Your task to perform on an android device: What's the weather going to be this weekend? Image 0: 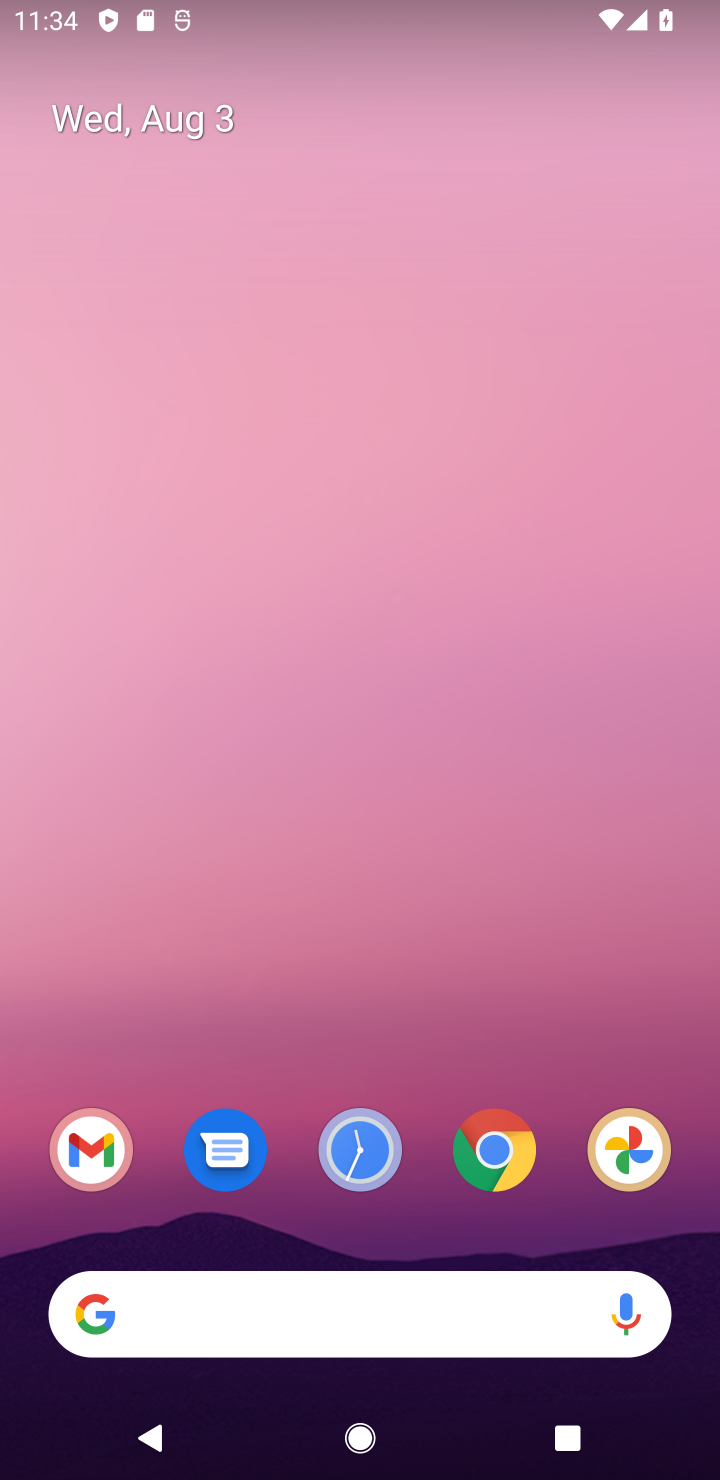
Step 0: press home button
Your task to perform on an android device: What's the weather going to be this weekend? Image 1: 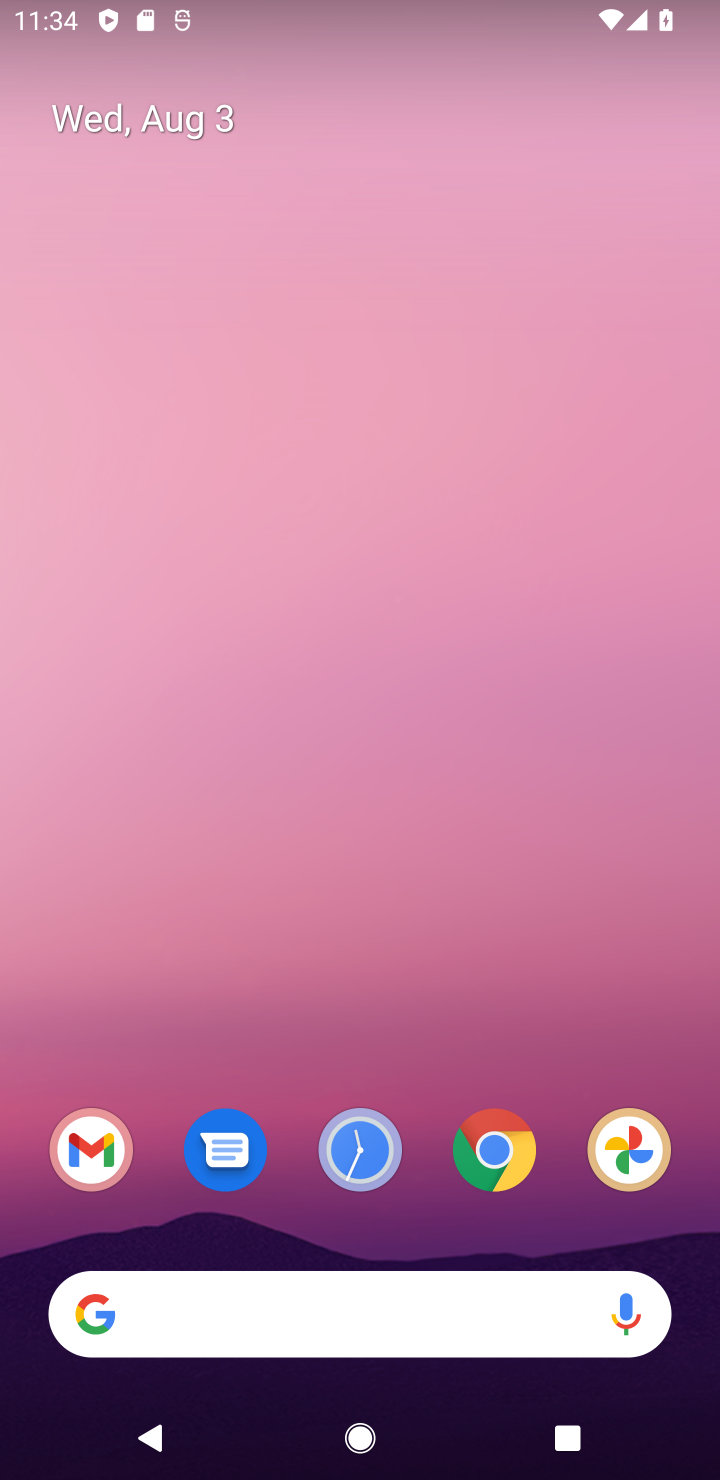
Step 1: drag from (519, 1064) to (536, 407)
Your task to perform on an android device: What's the weather going to be this weekend? Image 2: 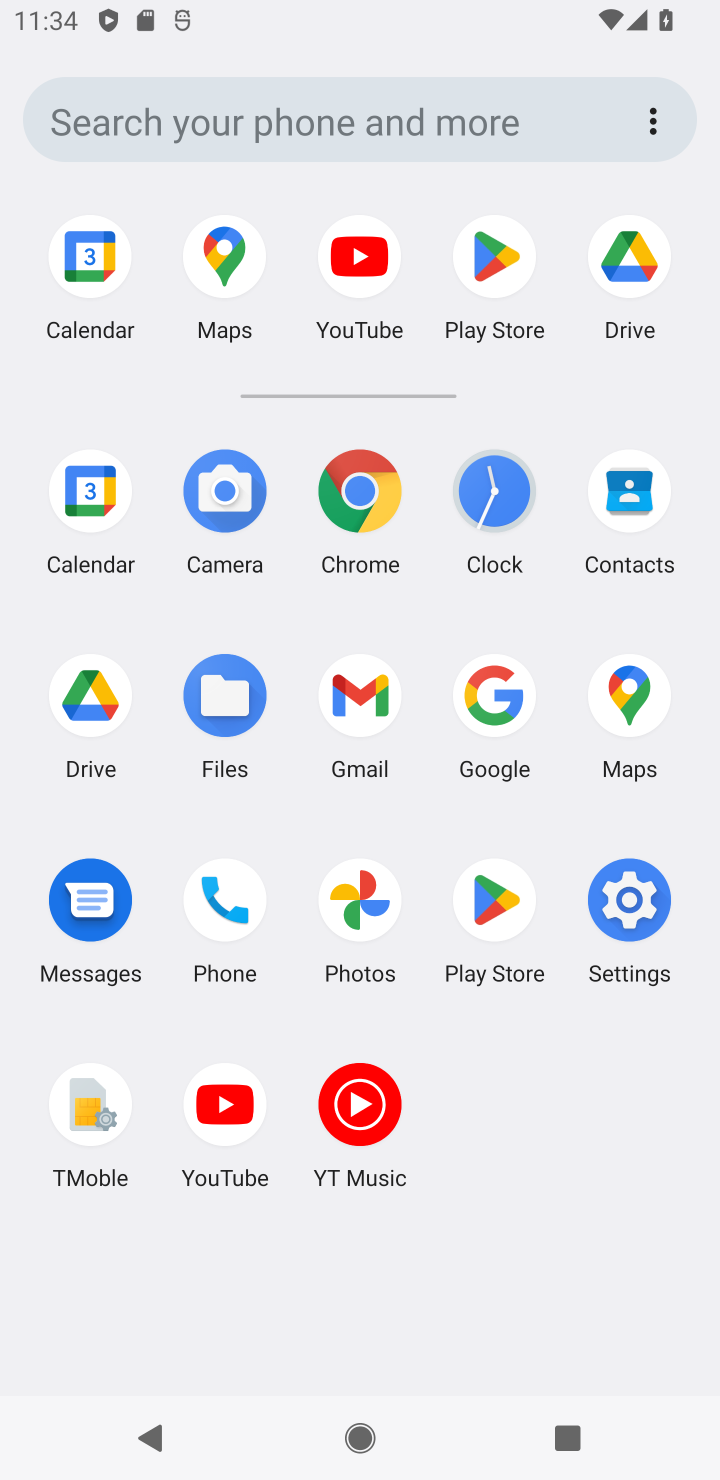
Step 2: click (403, 122)
Your task to perform on an android device: What's the weather going to be this weekend? Image 3: 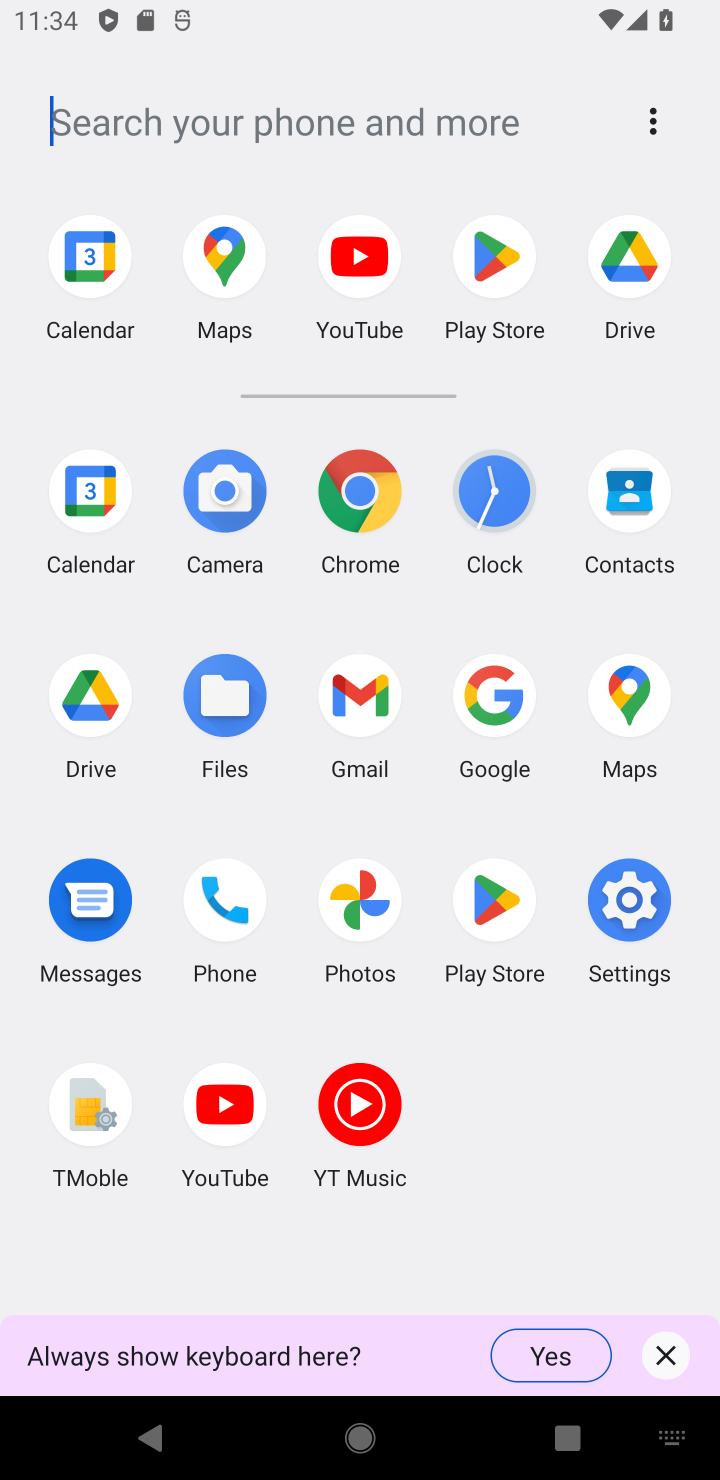
Step 3: type "weather"
Your task to perform on an android device: What's the weather going to be this weekend? Image 4: 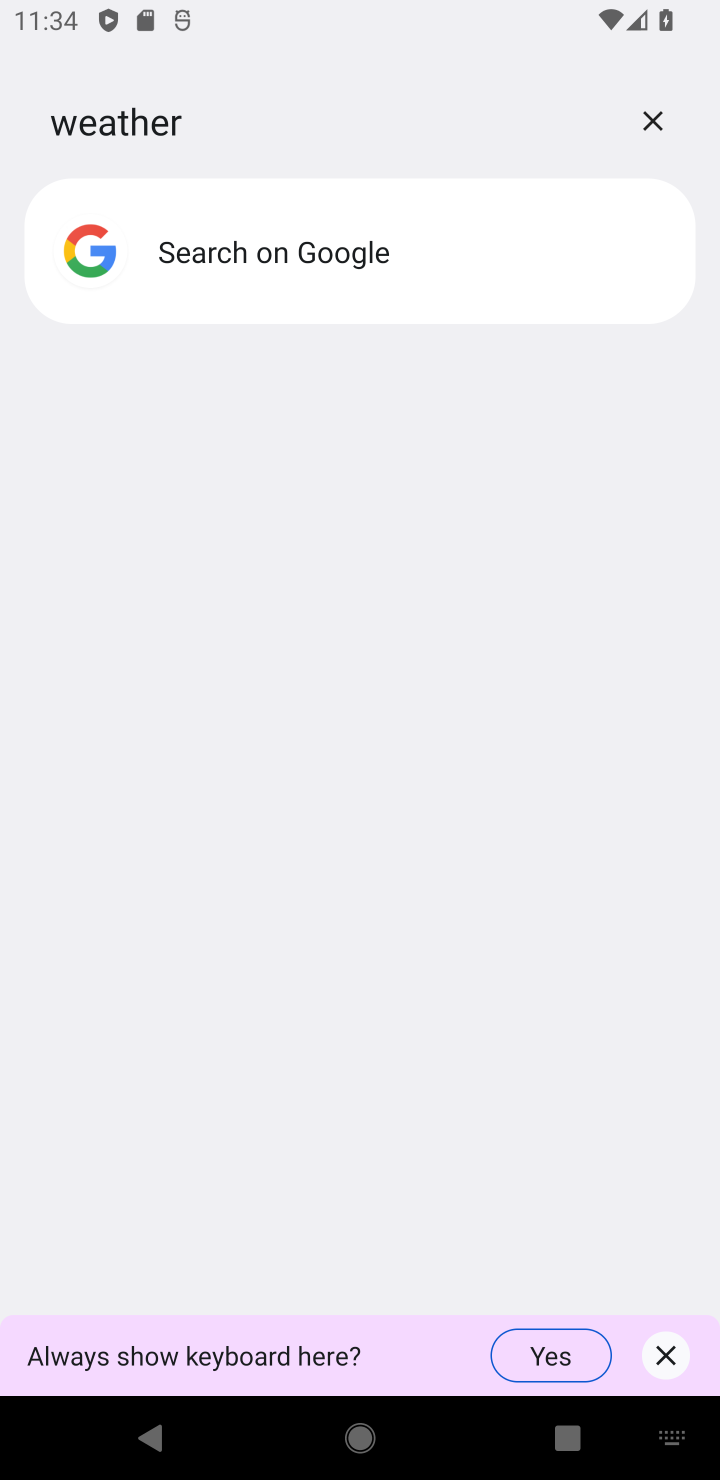
Step 4: task complete